Your task to perform on an android device: change the clock display to show seconds Image 0: 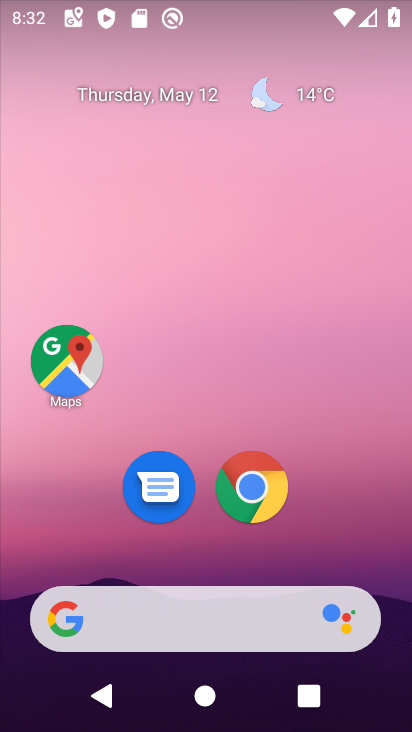
Step 0: drag from (351, 569) to (318, 10)
Your task to perform on an android device: change the clock display to show seconds Image 1: 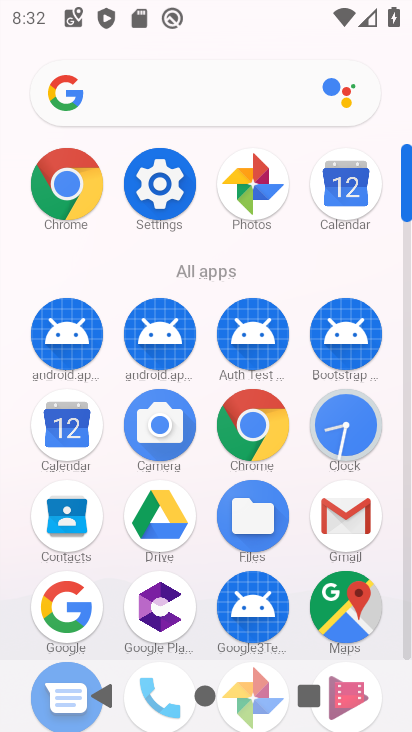
Step 1: click (340, 431)
Your task to perform on an android device: change the clock display to show seconds Image 2: 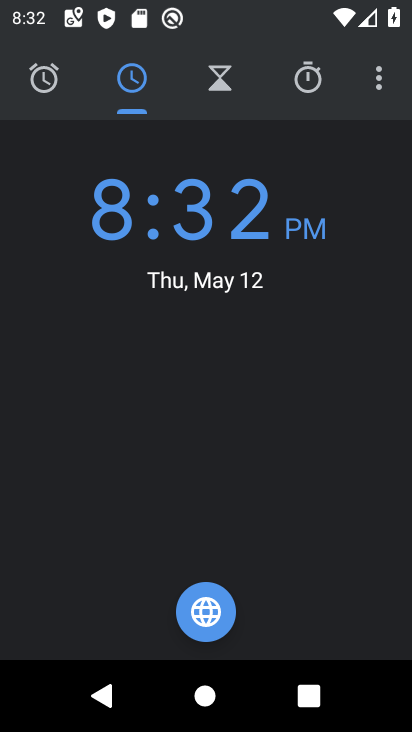
Step 2: click (376, 89)
Your task to perform on an android device: change the clock display to show seconds Image 3: 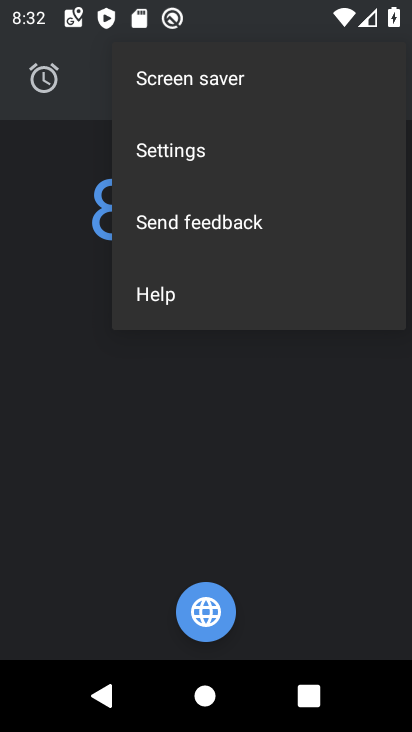
Step 3: click (184, 158)
Your task to perform on an android device: change the clock display to show seconds Image 4: 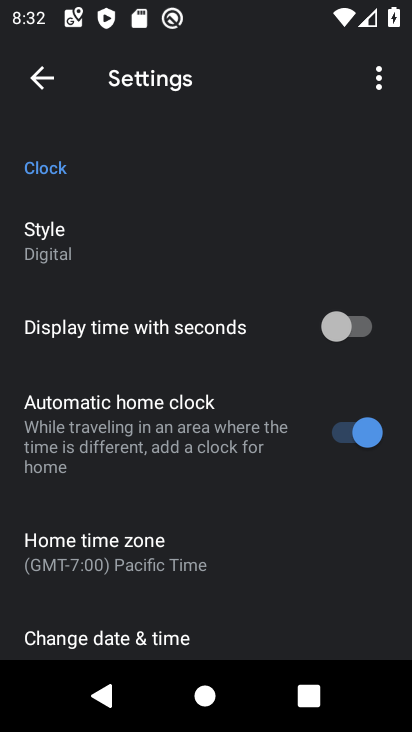
Step 4: click (335, 326)
Your task to perform on an android device: change the clock display to show seconds Image 5: 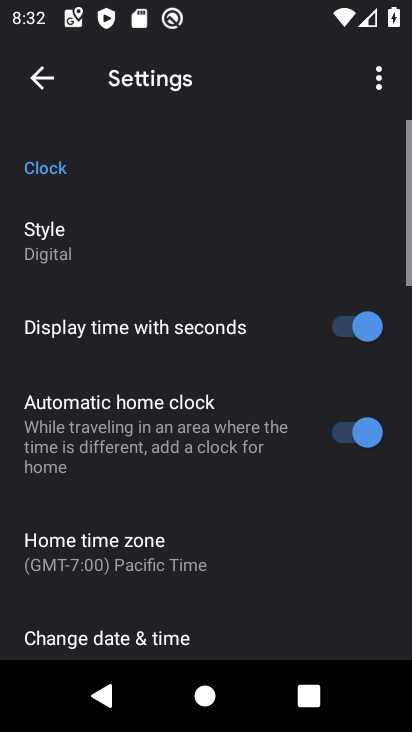
Step 5: task complete